Your task to perform on an android device: clear history in the chrome app Image 0: 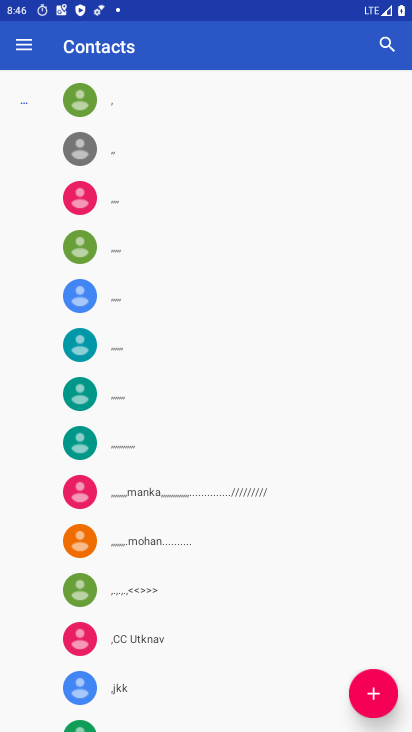
Step 0: press home button
Your task to perform on an android device: clear history in the chrome app Image 1: 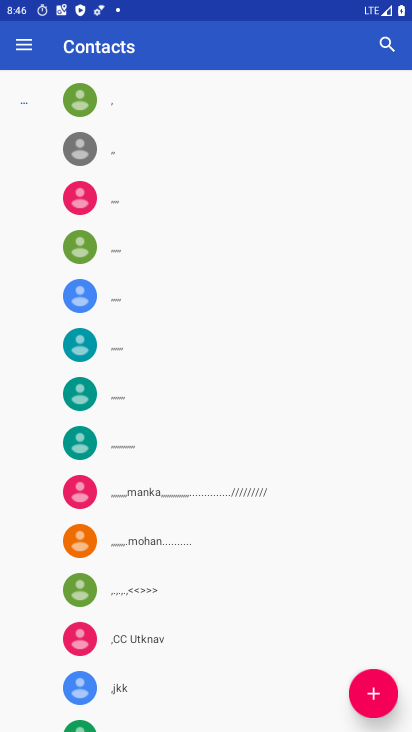
Step 1: press home button
Your task to perform on an android device: clear history in the chrome app Image 2: 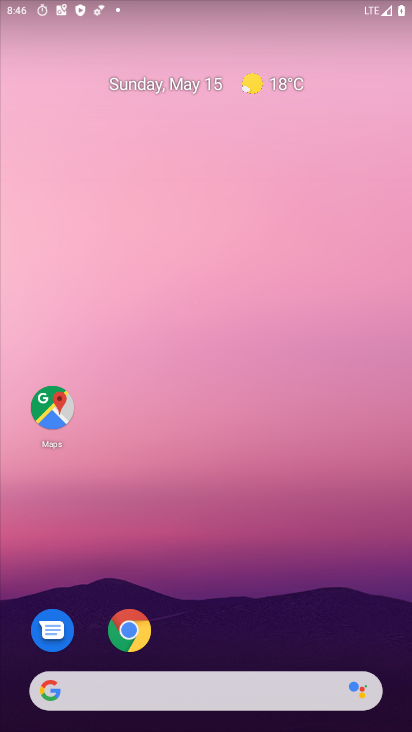
Step 2: drag from (187, 642) to (363, 348)
Your task to perform on an android device: clear history in the chrome app Image 3: 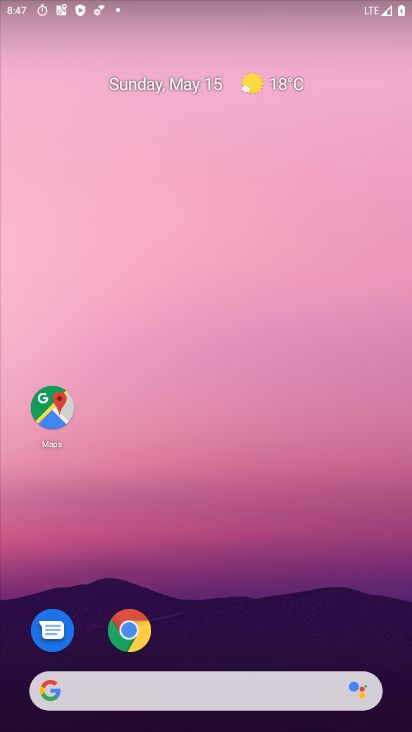
Step 3: drag from (193, 640) to (300, 221)
Your task to perform on an android device: clear history in the chrome app Image 4: 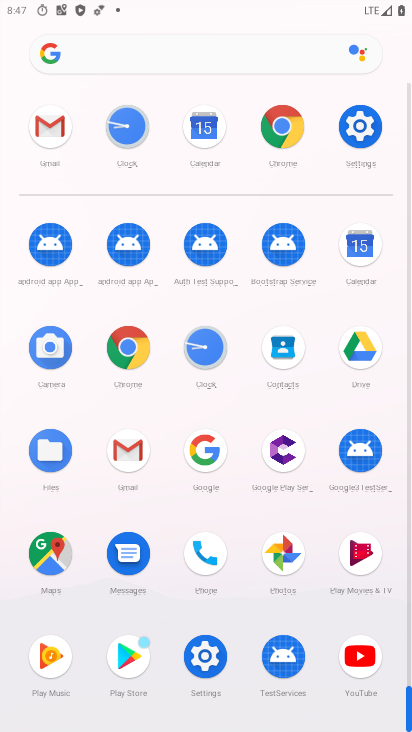
Step 4: click (126, 339)
Your task to perform on an android device: clear history in the chrome app Image 5: 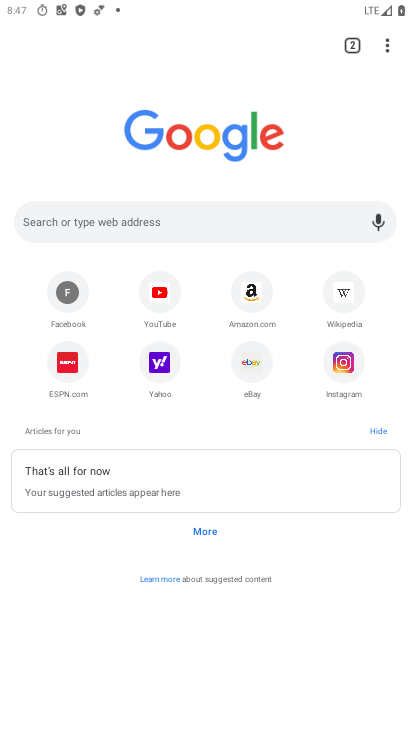
Step 5: click (174, 214)
Your task to perform on an android device: clear history in the chrome app Image 6: 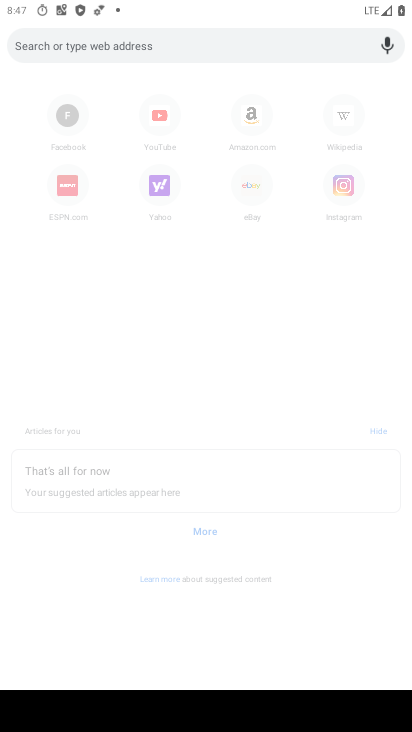
Step 6: click (305, 300)
Your task to perform on an android device: clear history in the chrome app Image 7: 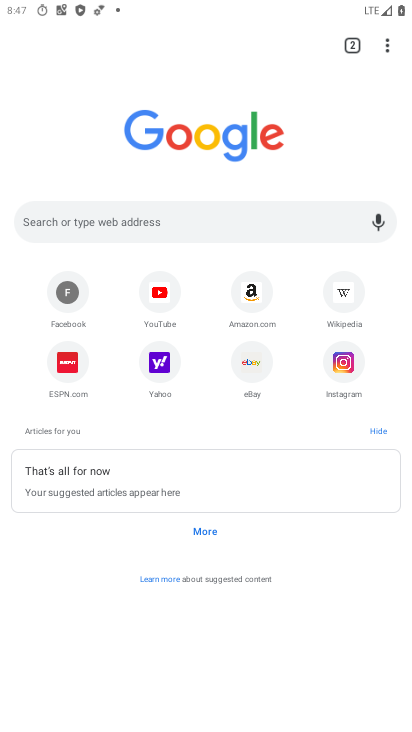
Step 7: drag from (382, 42) to (246, 255)
Your task to perform on an android device: clear history in the chrome app Image 8: 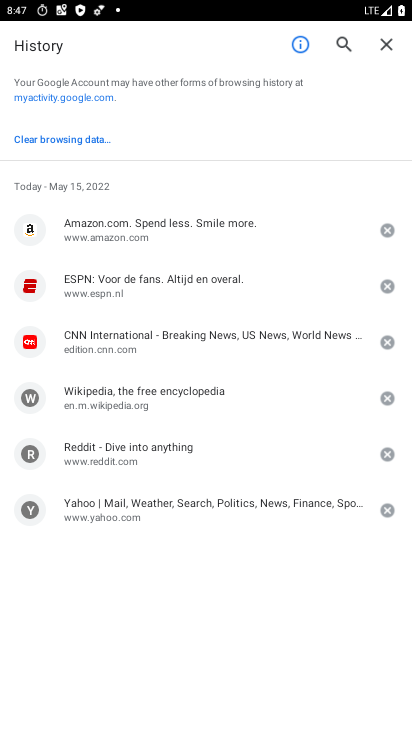
Step 8: click (28, 138)
Your task to perform on an android device: clear history in the chrome app Image 9: 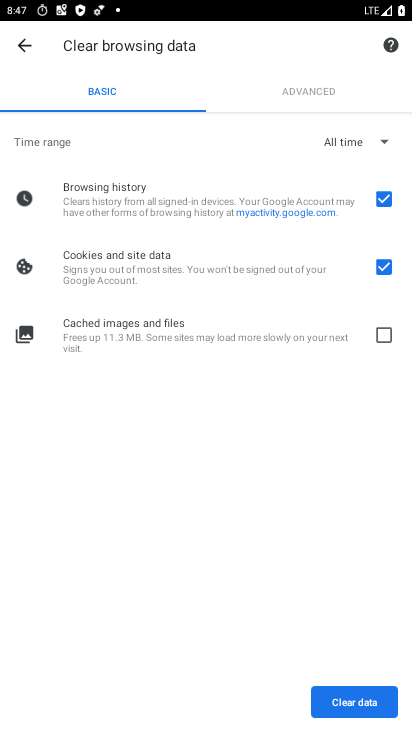
Step 9: drag from (267, 650) to (289, 310)
Your task to perform on an android device: clear history in the chrome app Image 10: 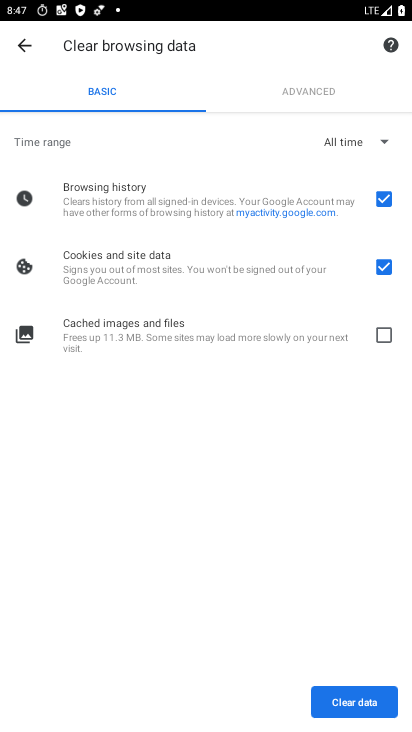
Step 10: click (361, 701)
Your task to perform on an android device: clear history in the chrome app Image 11: 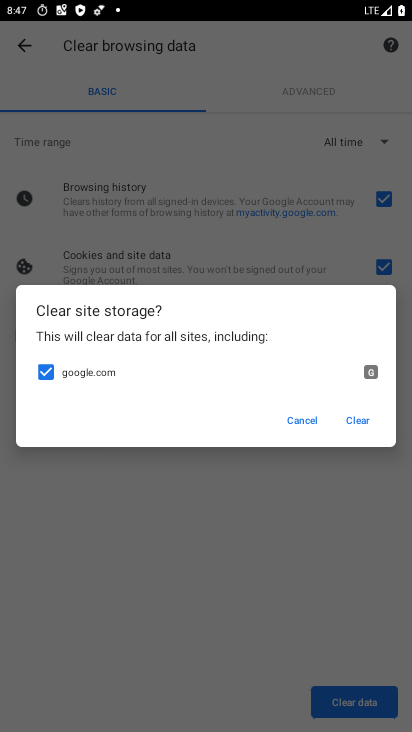
Step 11: click (358, 419)
Your task to perform on an android device: clear history in the chrome app Image 12: 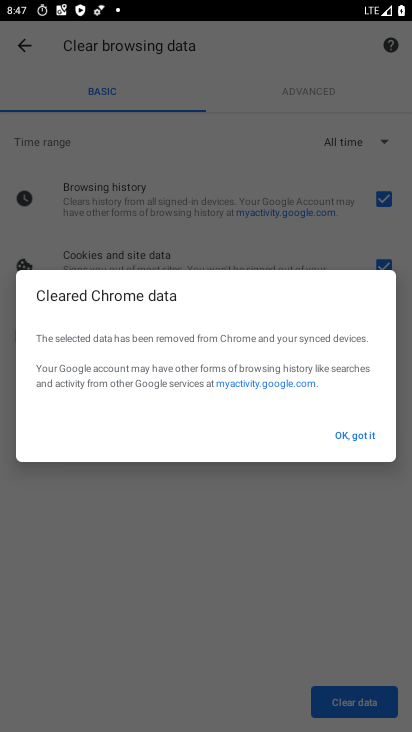
Step 12: click (351, 441)
Your task to perform on an android device: clear history in the chrome app Image 13: 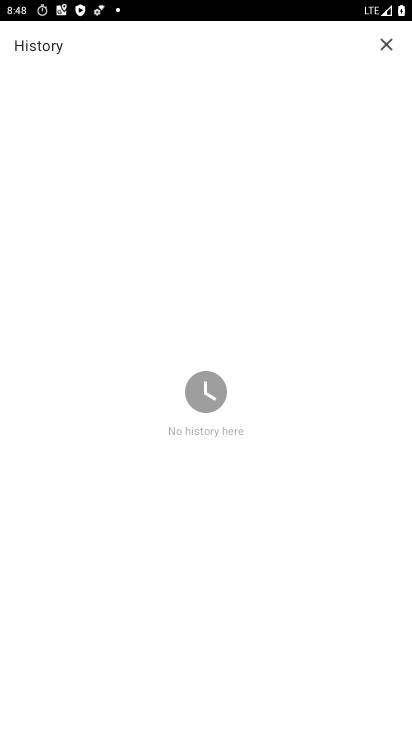
Step 13: task complete